Your task to perform on an android device: open app "Google Chrome" (install if not already installed) Image 0: 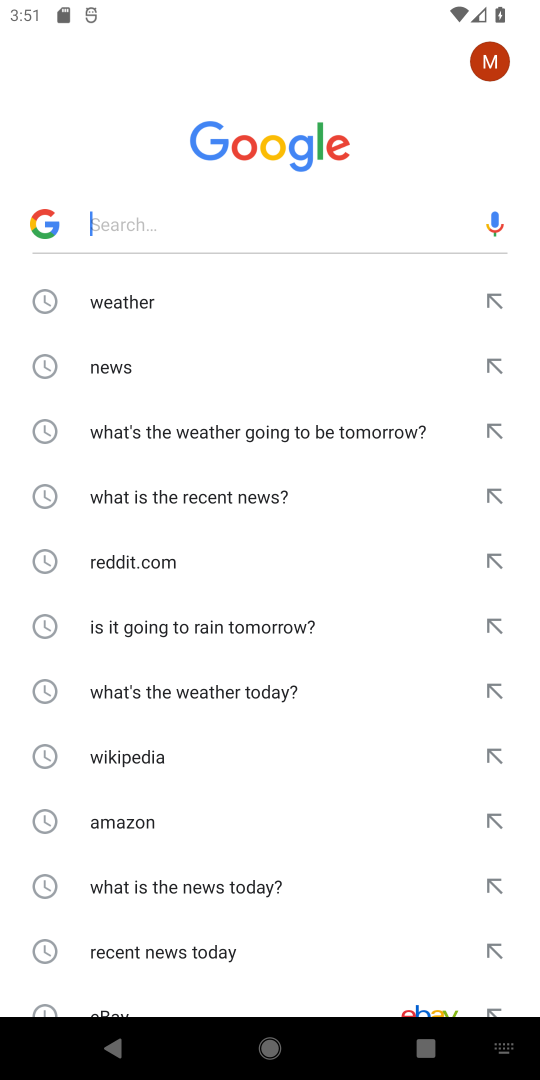
Step 0: press back button
Your task to perform on an android device: open app "Google Chrome" (install if not already installed) Image 1: 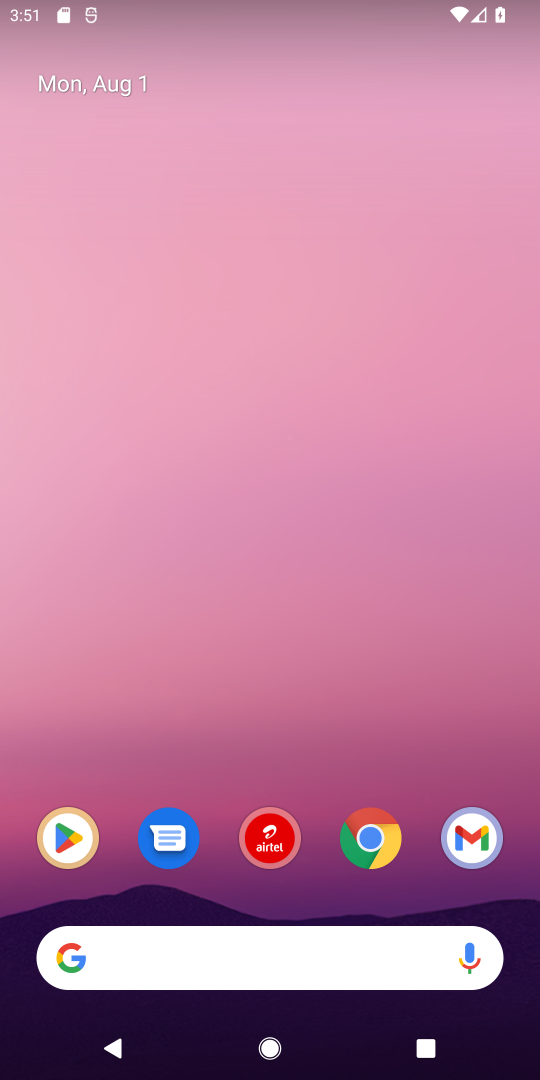
Step 1: click (54, 823)
Your task to perform on an android device: open app "Google Chrome" (install if not already installed) Image 2: 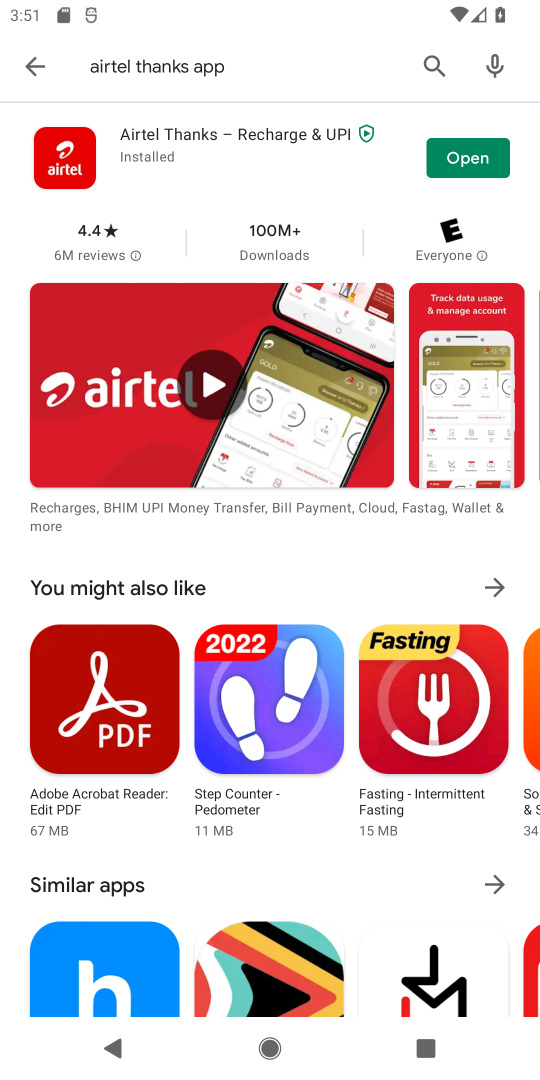
Step 2: click (424, 57)
Your task to perform on an android device: open app "Google Chrome" (install if not already installed) Image 3: 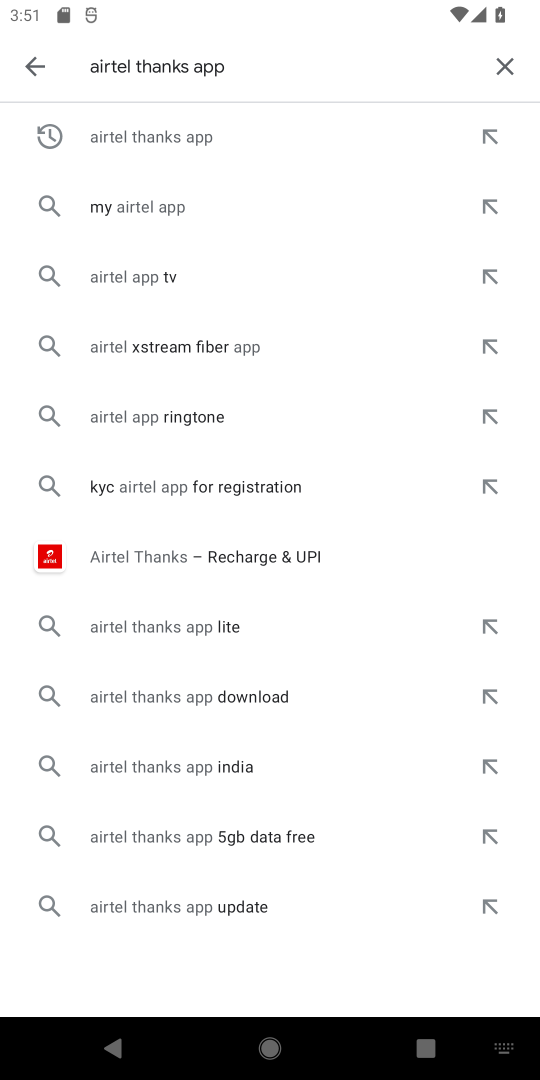
Step 3: click (276, 150)
Your task to perform on an android device: open app "Google Chrome" (install if not already installed) Image 4: 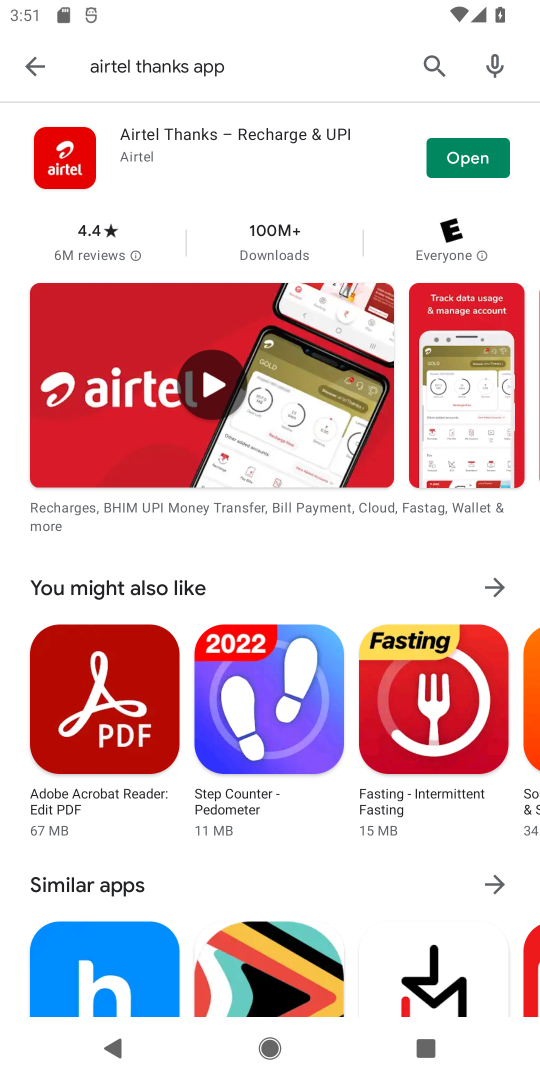
Step 4: click (489, 157)
Your task to perform on an android device: open app "Google Chrome" (install if not already installed) Image 5: 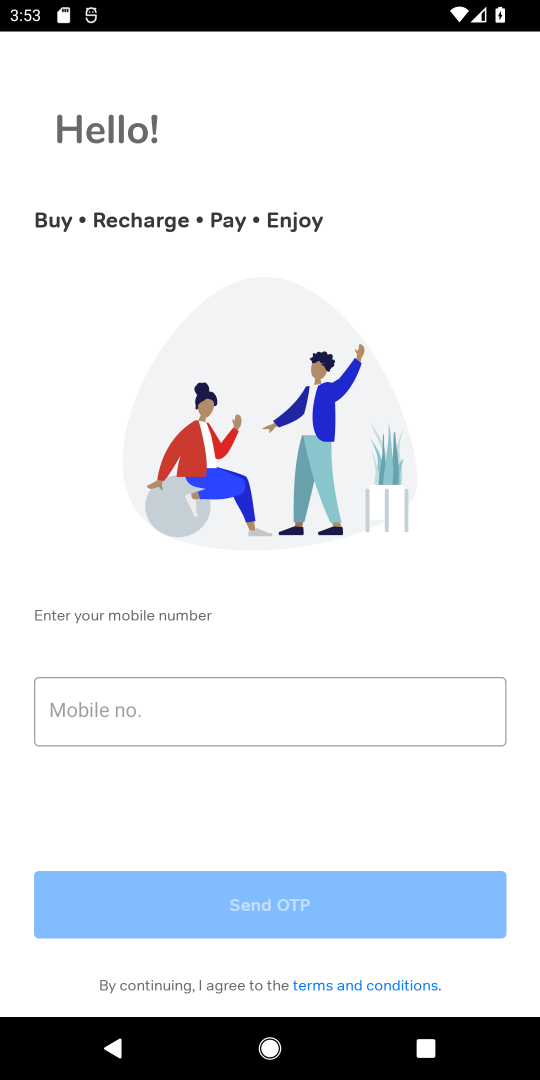
Step 5: task complete